Your task to perform on an android device: open a new tab in the chrome app Image 0: 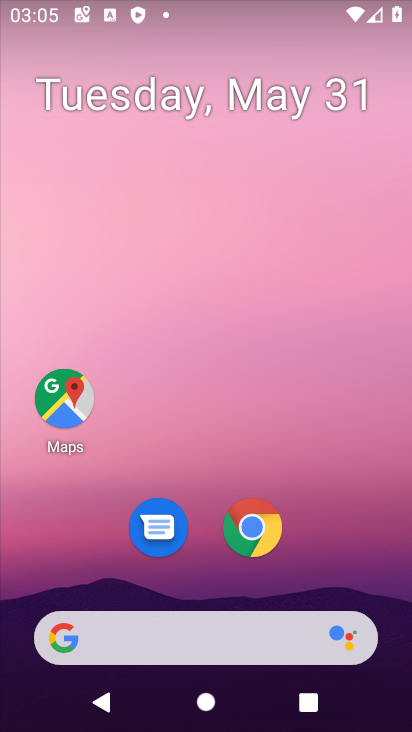
Step 0: click (253, 525)
Your task to perform on an android device: open a new tab in the chrome app Image 1: 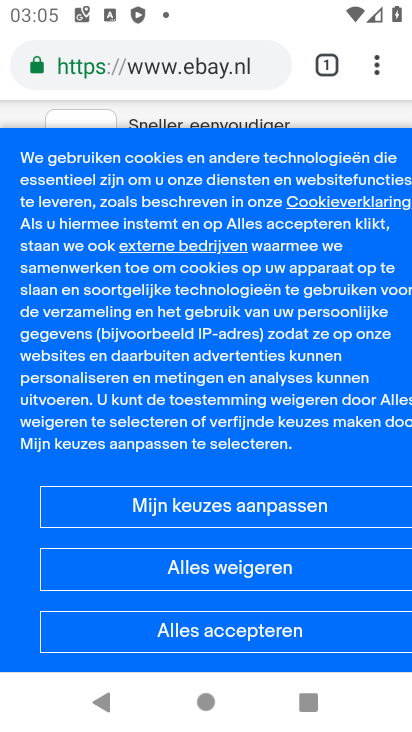
Step 1: click (375, 72)
Your task to perform on an android device: open a new tab in the chrome app Image 2: 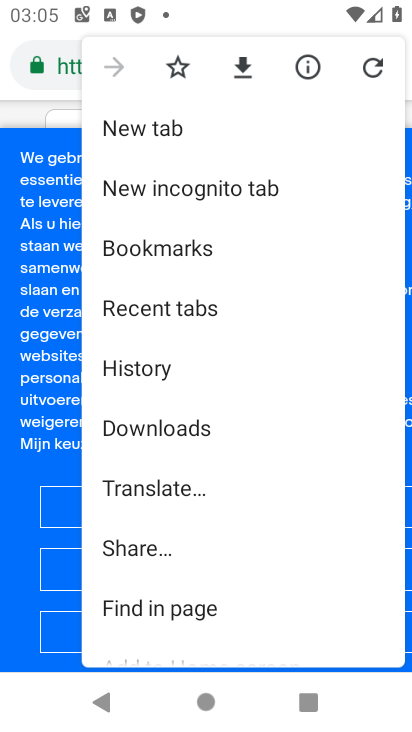
Step 2: click (136, 124)
Your task to perform on an android device: open a new tab in the chrome app Image 3: 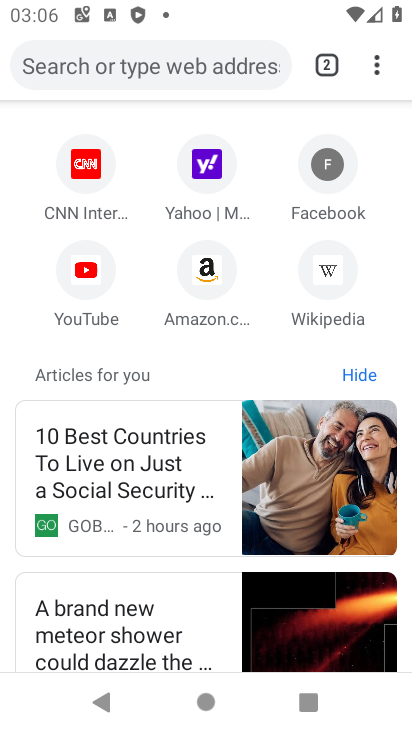
Step 3: task complete